Your task to perform on an android device: Search for 3d printed chess sets on Etsy. Image 0: 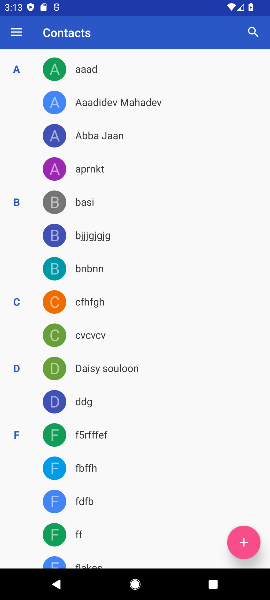
Step 0: press home button
Your task to perform on an android device: Search for 3d printed chess sets on Etsy. Image 1: 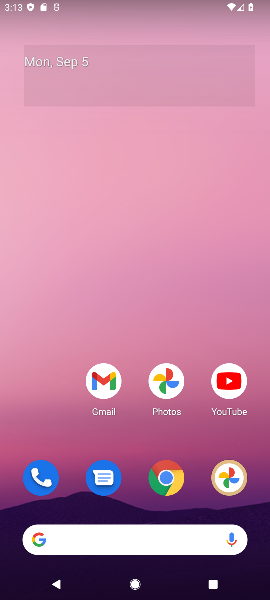
Step 1: click (161, 470)
Your task to perform on an android device: Search for 3d printed chess sets on Etsy. Image 2: 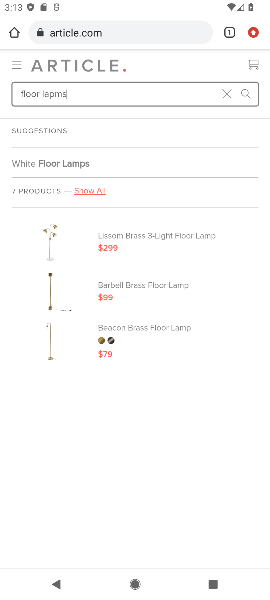
Step 2: click (188, 33)
Your task to perform on an android device: Search for 3d printed chess sets on Etsy. Image 3: 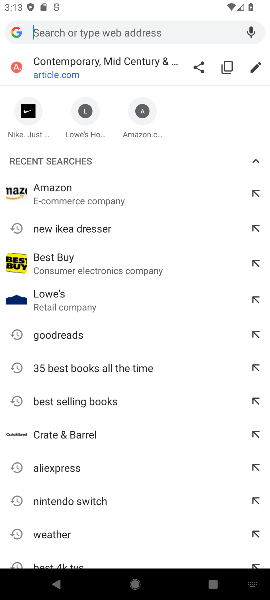
Step 3: type "Etsy"
Your task to perform on an android device: Search for 3d printed chess sets on Etsy. Image 4: 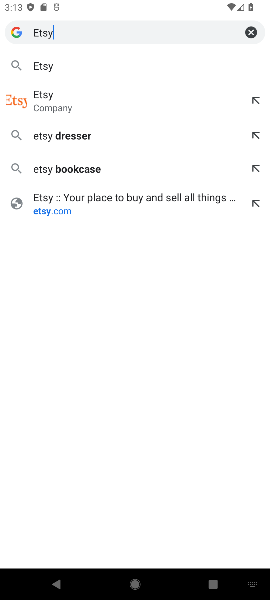
Step 4: click (121, 96)
Your task to perform on an android device: Search for 3d printed chess sets on Etsy. Image 5: 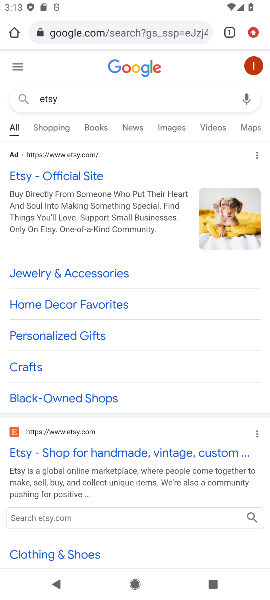
Step 5: click (59, 449)
Your task to perform on an android device: Search for 3d printed chess sets on Etsy. Image 6: 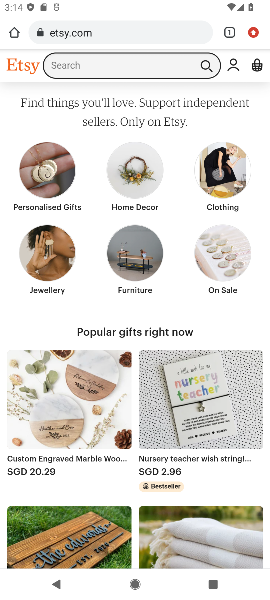
Step 6: click (131, 69)
Your task to perform on an android device: Search for 3d printed chess sets on Etsy. Image 7: 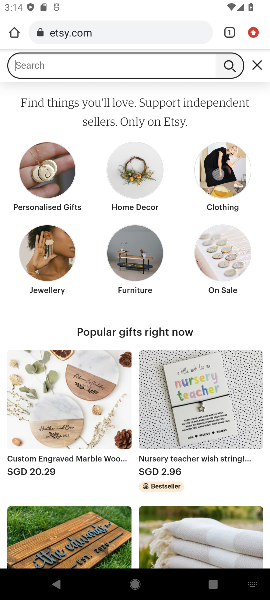
Step 7: type "3d printed chess sets"
Your task to perform on an android device: Search for 3d printed chess sets on Etsy. Image 8: 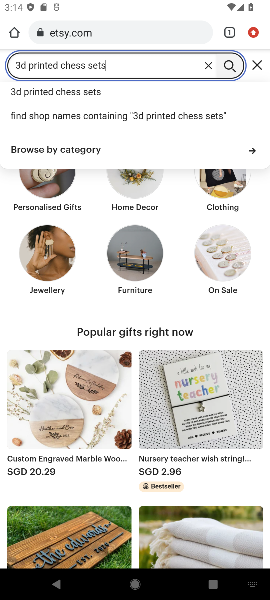
Step 8: click (57, 95)
Your task to perform on an android device: Search for 3d printed chess sets on Etsy. Image 9: 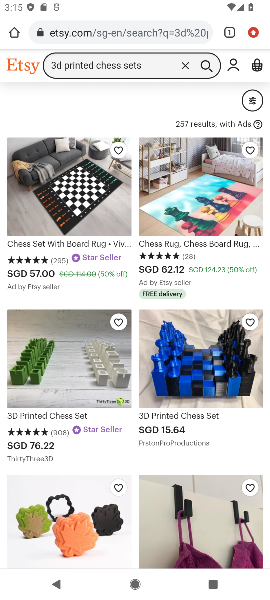
Step 9: task complete